Your task to perform on an android device: check storage Image 0: 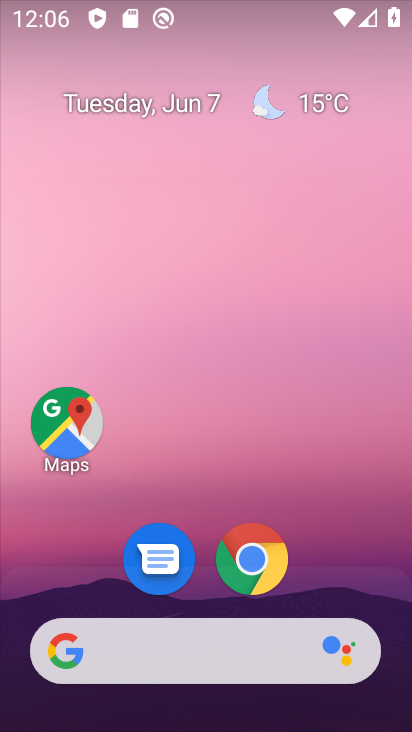
Step 0: drag from (387, 592) to (319, 14)
Your task to perform on an android device: check storage Image 1: 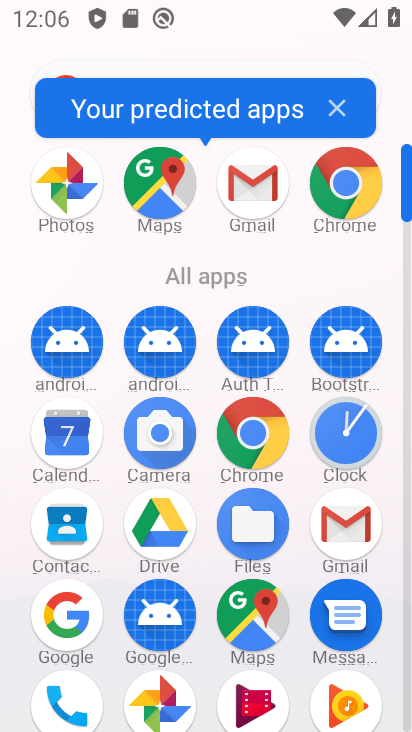
Step 1: click (406, 701)
Your task to perform on an android device: check storage Image 2: 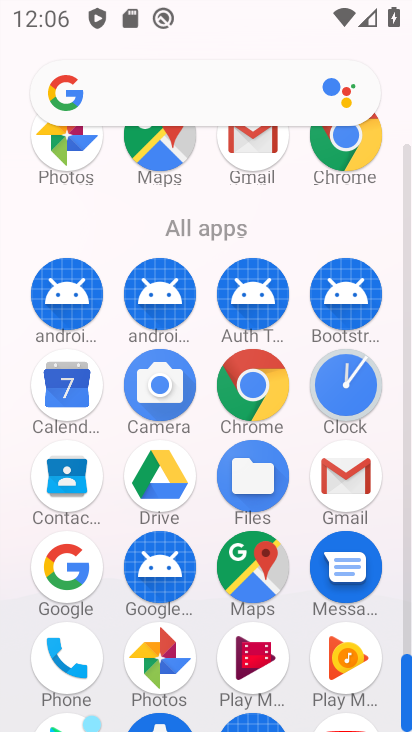
Step 2: drag from (408, 633) to (406, 534)
Your task to perform on an android device: check storage Image 3: 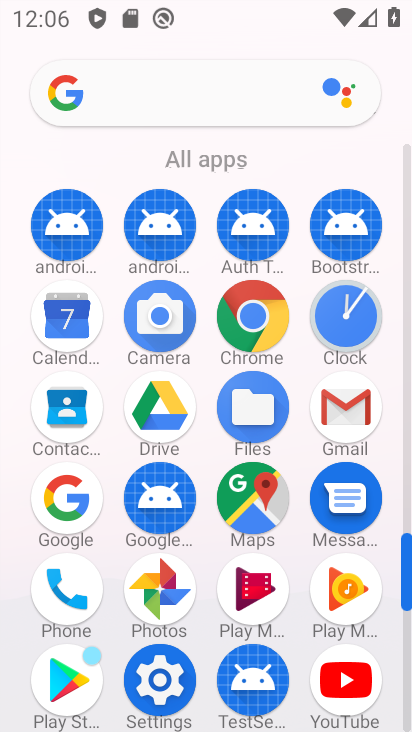
Step 3: click (163, 676)
Your task to perform on an android device: check storage Image 4: 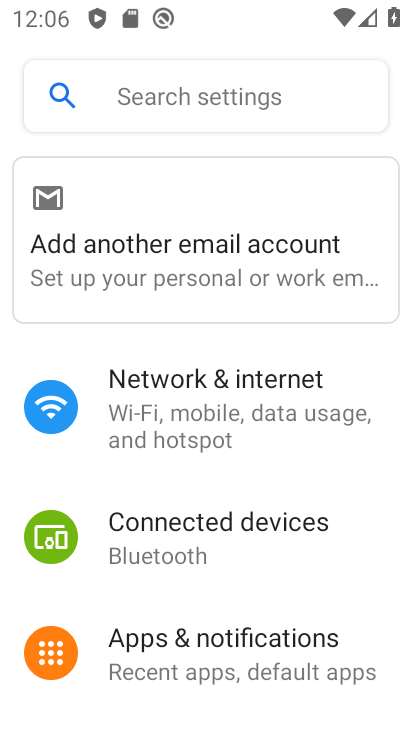
Step 4: drag from (357, 606) to (326, 162)
Your task to perform on an android device: check storage Image 5: 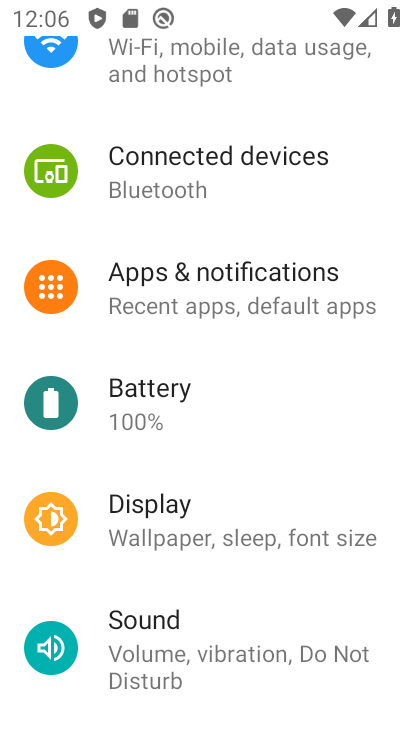
Step 5: drag from (346, 551) to (317, 213)
Your task to perform on an android device: check storage Image 6: 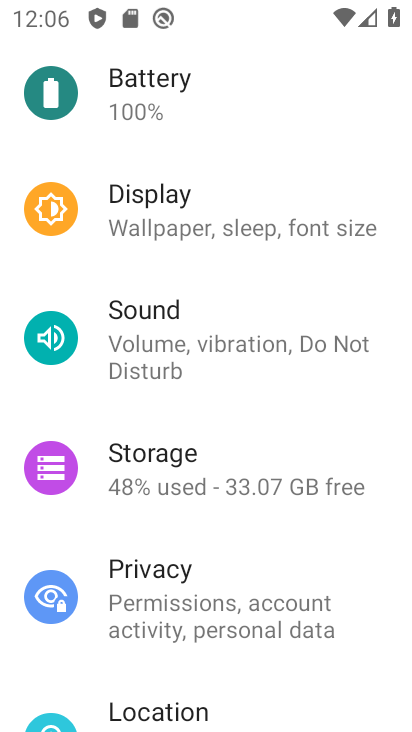
Step 6: click (154, 482)
Your task to perform on an android device: check storage Image 7: 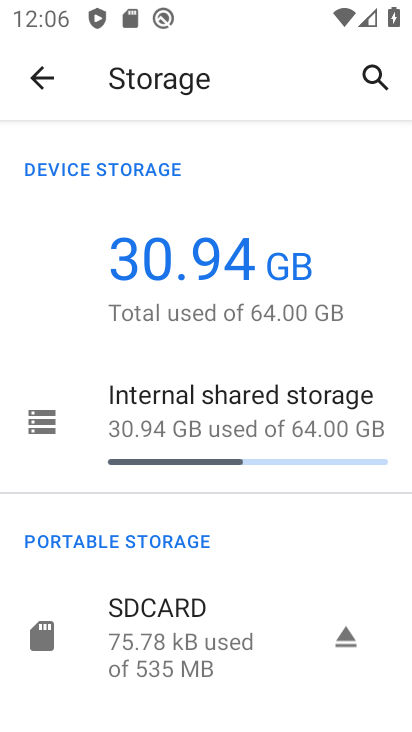
Step 7: task complete